Your task to perform on an android device: Go to Reddit.com Image 0: 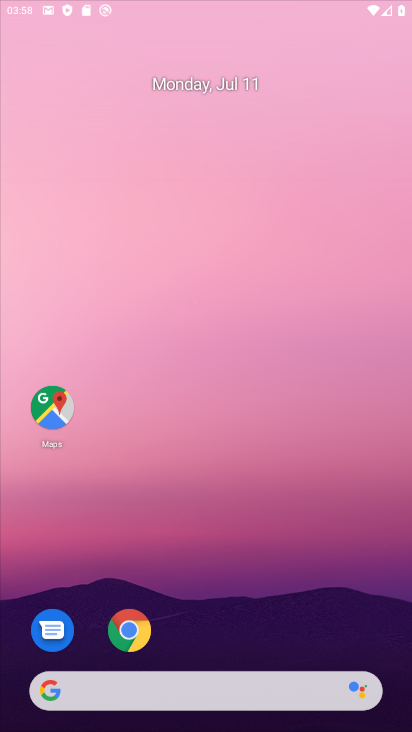
Step 0: press home button
Your task to perform on an android device: Go to Reddit.com Image 1: 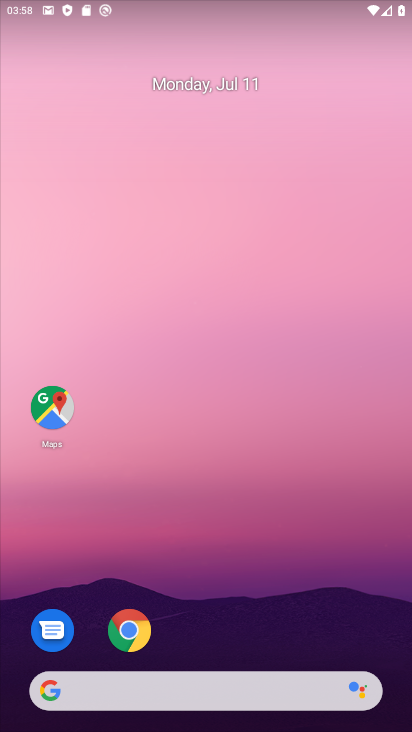
Step 1: drag from (219, 647) to (227, 92)
Your task to perform on an android device: Go to Reddit.com Image 2: 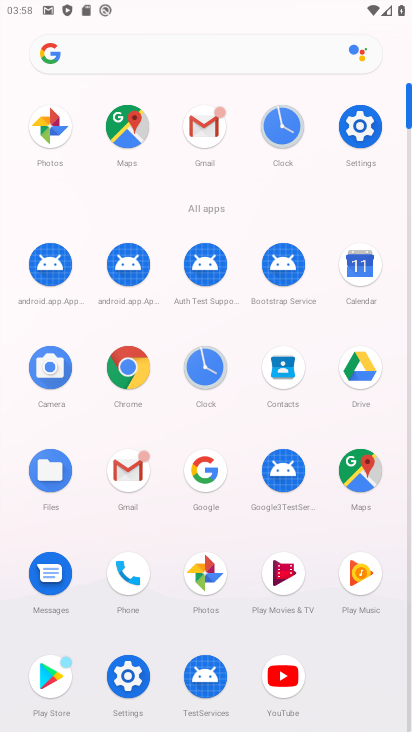
Step 2: click (124, 357)
Your task to perform on an android device: Go to Reddit.com Image 3: 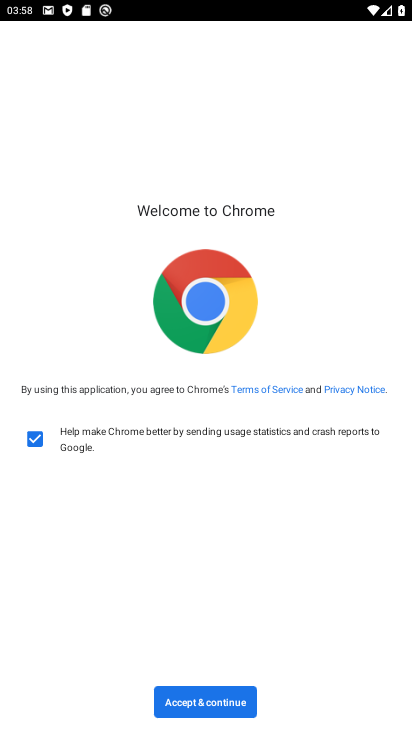
Step 3: click (198, 696)
Your task to perform on an android device: Go to Reddit.com Image 4: 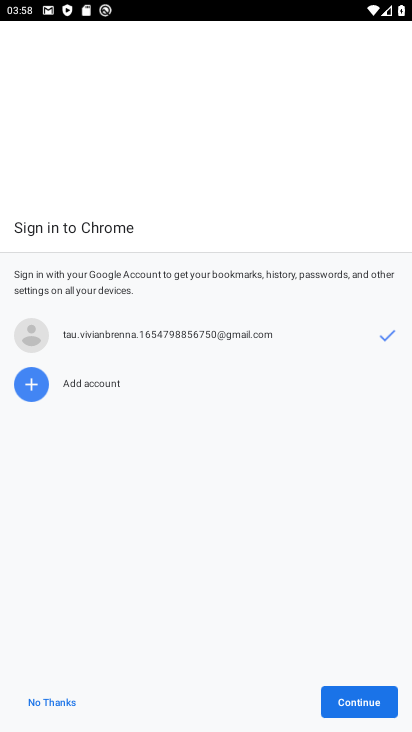
Step 4: click (341, 703)
Your task to perform on an android device: Go to Reddit.com Image 5: 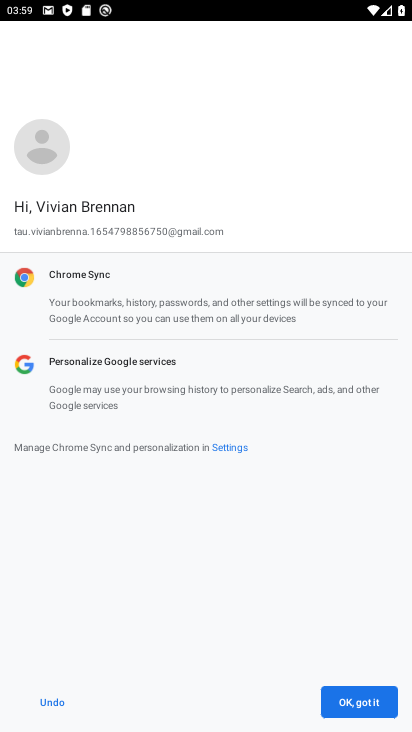
Step 5: click (362, 703)
Your task to perform on an android device: Go to Reddit.com Image 6: 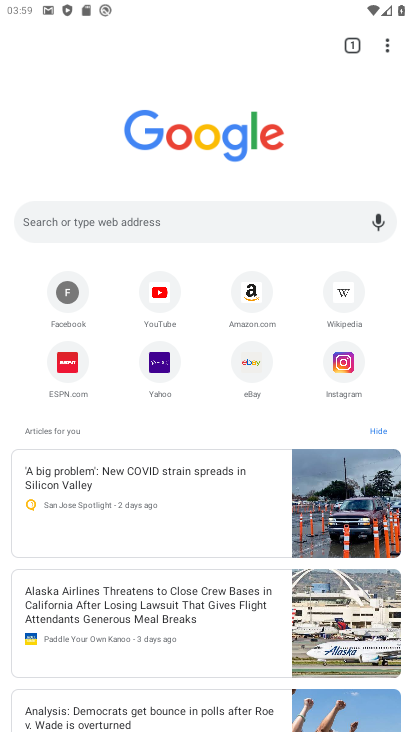
Step 6: click (113, 218)
Your task to perform on an android device: Go to Reddit.com Image 7: 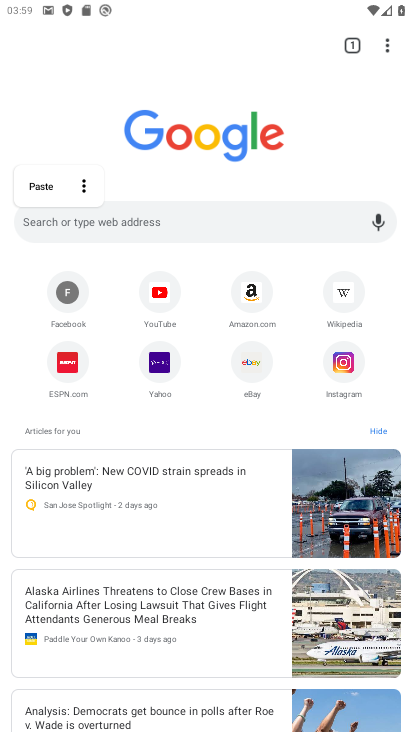
Step 7: click (62, 220)
Your task to perform on an android device: Go to Reddit.com Image 8: 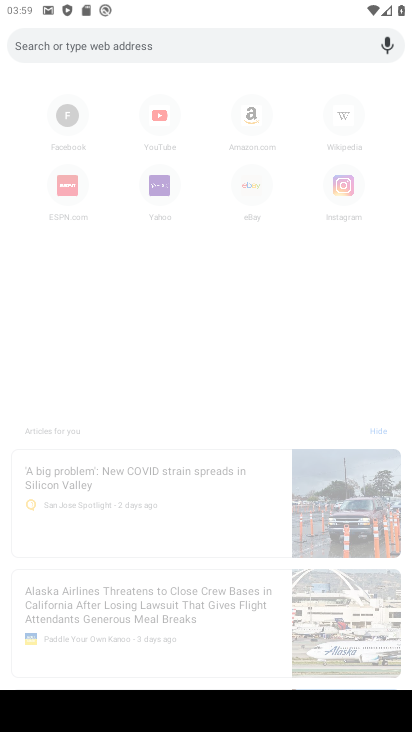
Step 8: type "reddit.com"
Your task to perform on an android device: Go to Reddit.com Image 9: 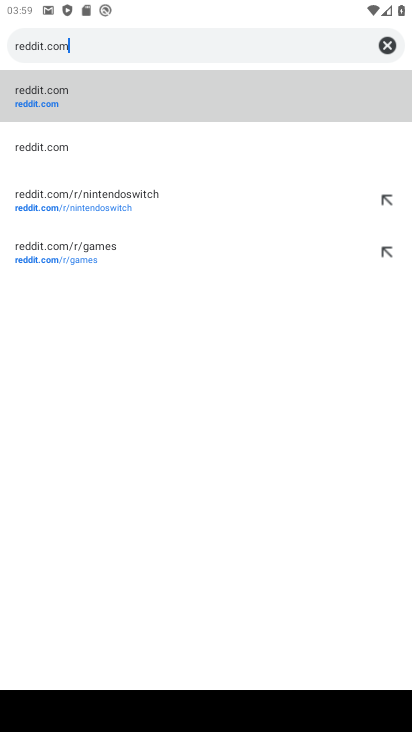
Step 9: click (79, 97)
Your task to perform on an android device: Go to Reddit.com Image 10: 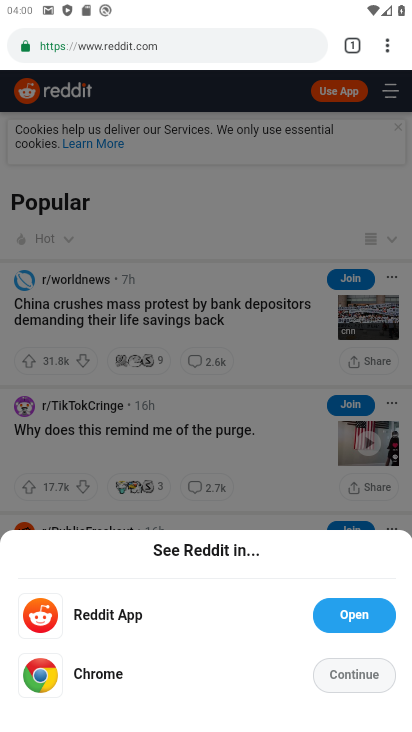
Step 10: click (352, 681)
Your task to perform on an android device: Go to Reddit.com Image 11: 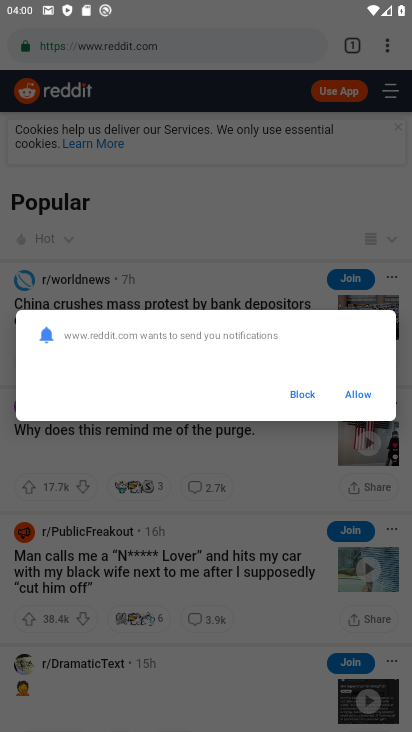
Step 11: click (301, 389)
Your task to perform on an android device: Go to Reddit.com Image 12: 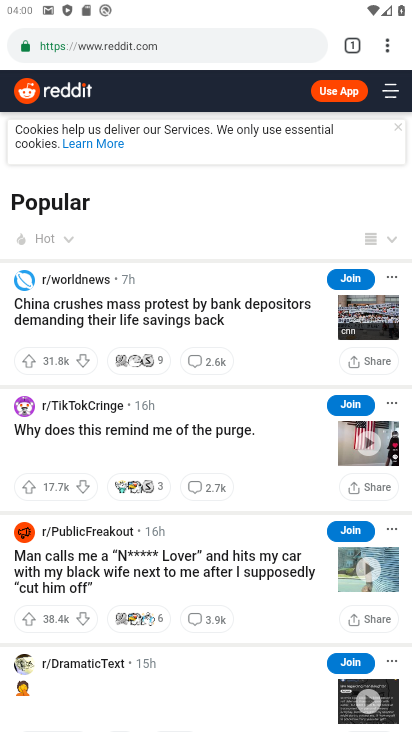
Step 12: task complete